Your task to perform on an android device: open a new tab in the chrome app Image 0: 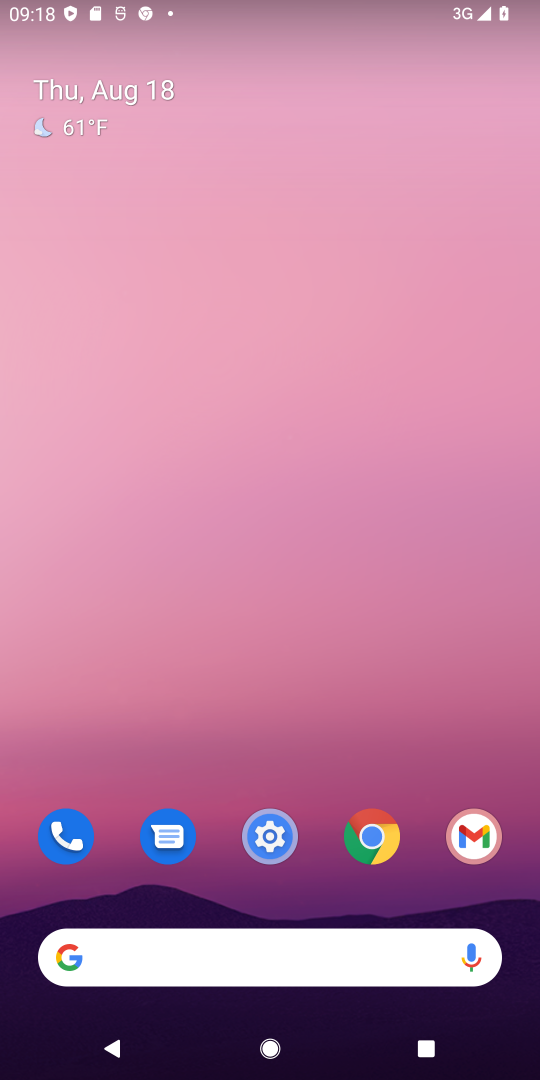
Step 0: drag from (377, 735) to (487, 107)
Your task to perform on an android device: open a new tab in the chrome app Image 1: 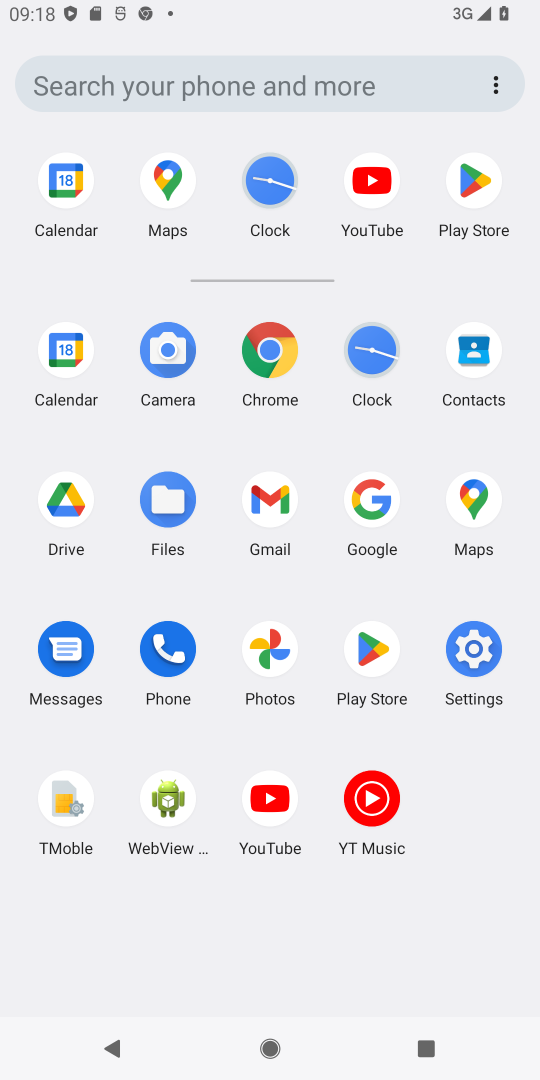
Step 1: click (266, 349)
Your task to perform on an android device: open a new tab in the chrome app Image 2: 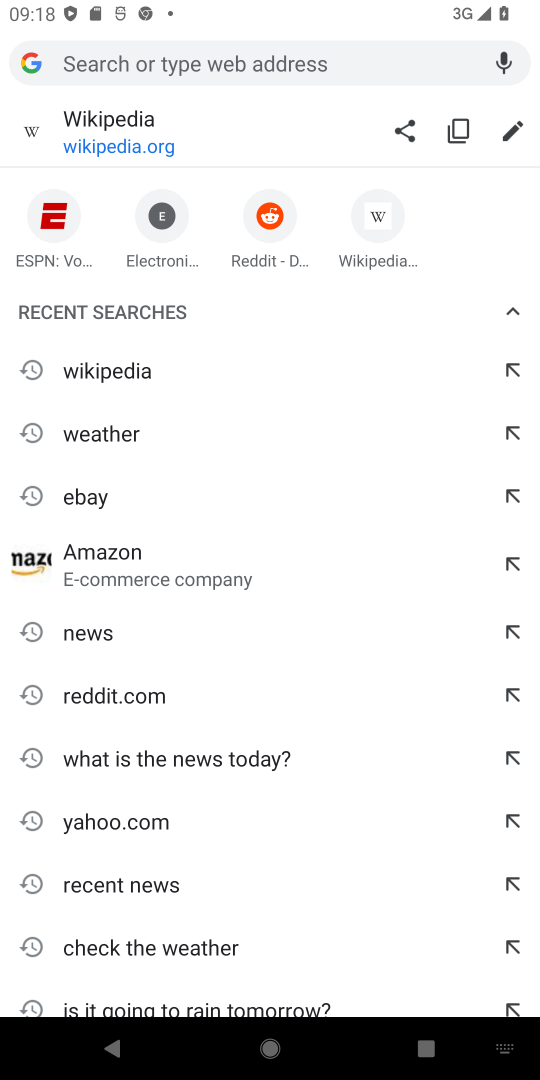
Step 2: task complete